Your task to perform on an android device: Open display settings Image 0: 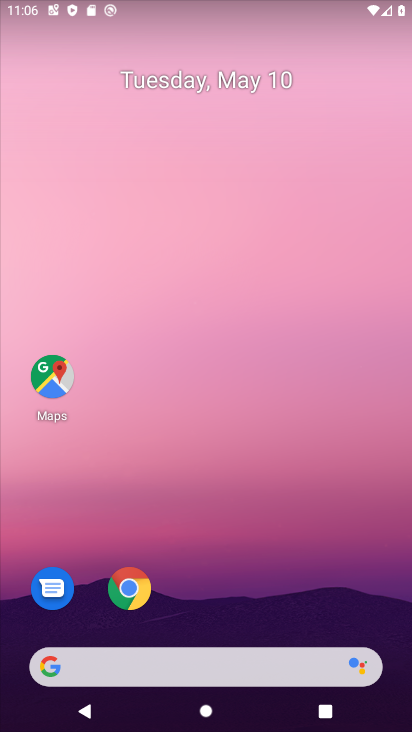
Step 0: drag from (363, 675) to (270, 169)
Your task to perform on an android device: Open display settings Image 1: 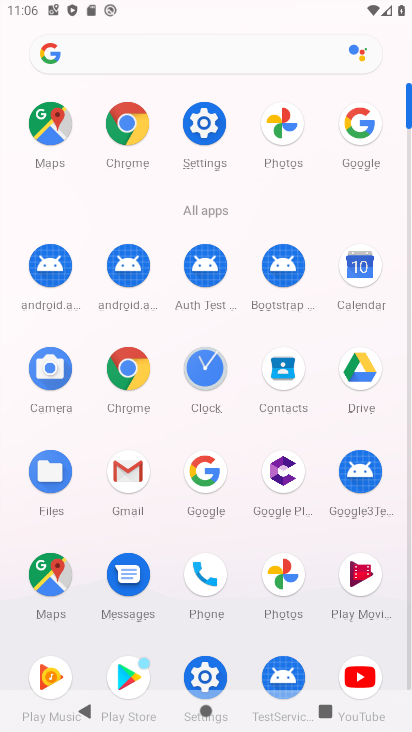
Step 1: click (205, 134)
Your task to perform on an android device: Open display settings Image 2: 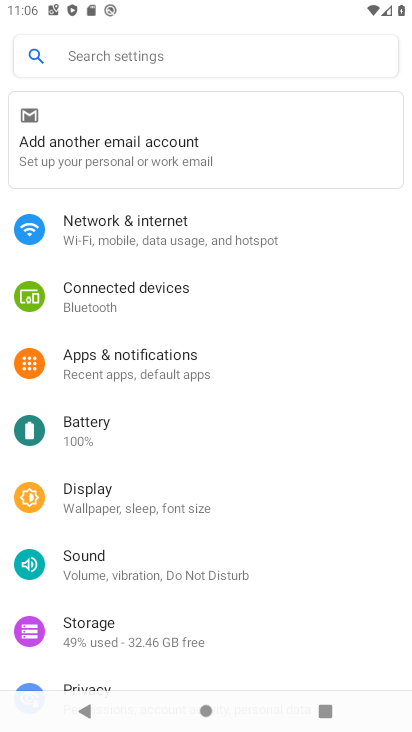
Step 2: click (91, 499)
Your task to perform on an android device: Open display settings Image 3: 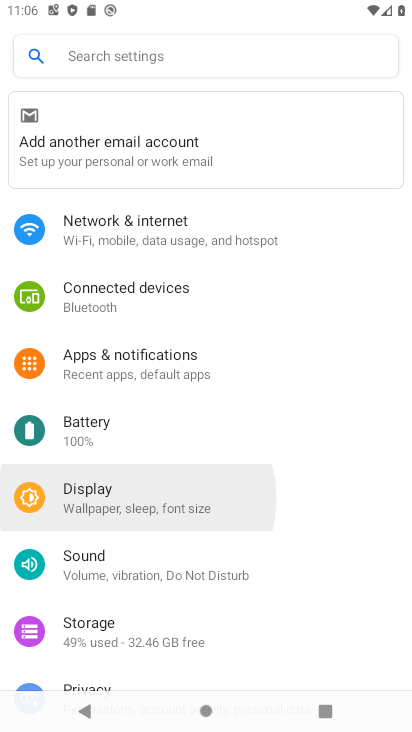
Step 3: click (91, 499)
Your task to perform on an android device: Open display settings Image 4: 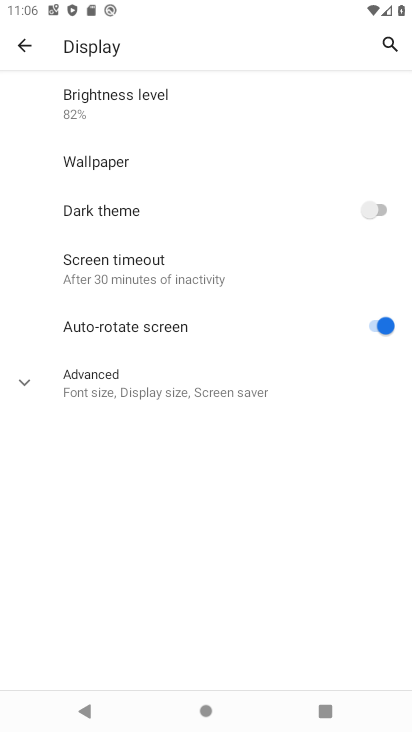
Step 4: task complete